Your task to perform on an android device: open chrome privacy settings Image 0: 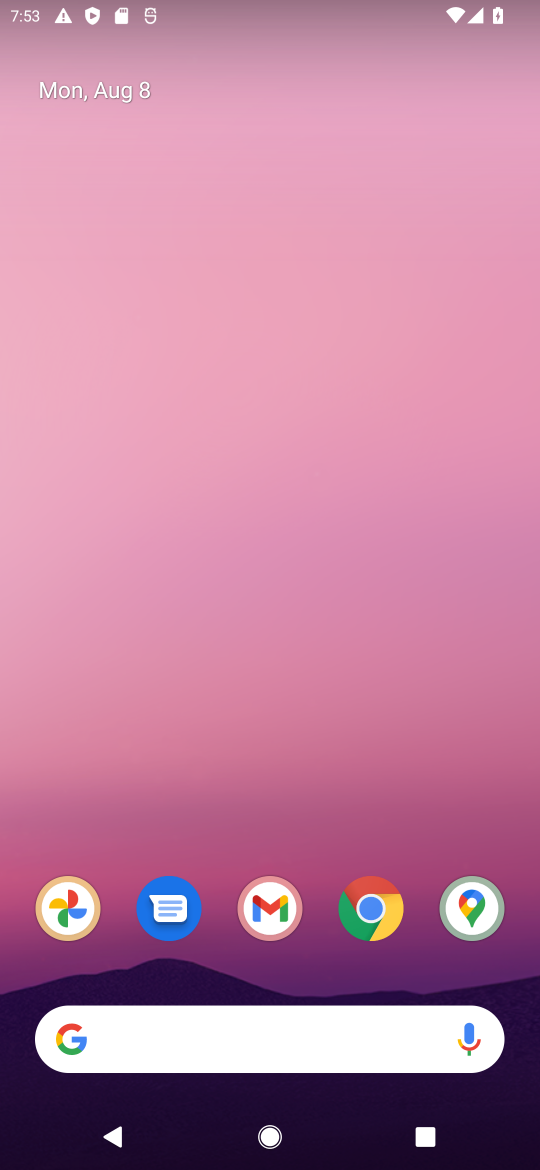
Step 0: click (371, 925)
Your task to perform on an android device: open chrome privacy settings Image 1: 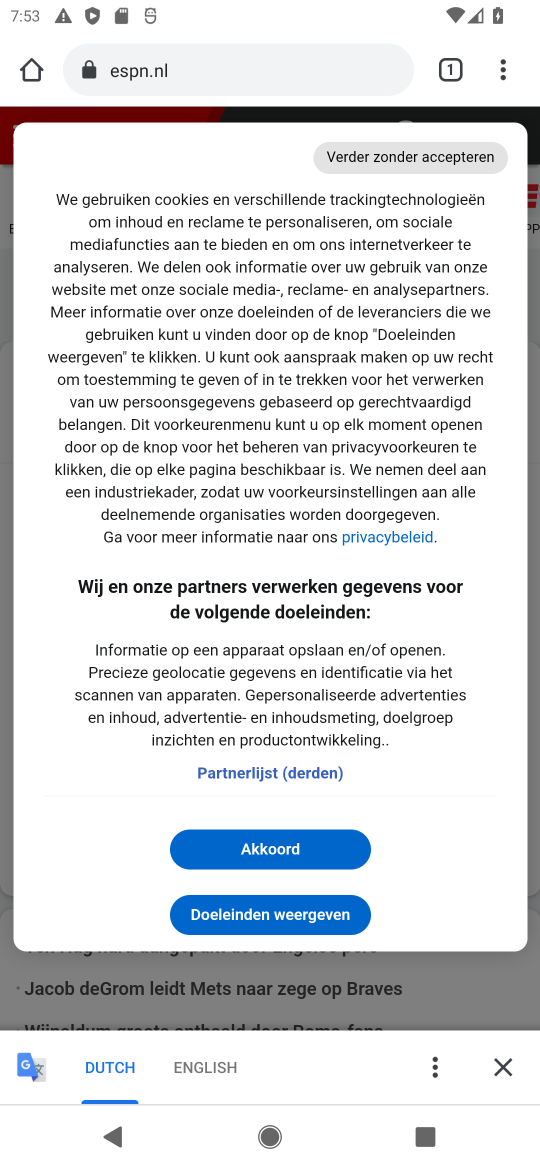
Step 1: click (517, 65)
Your task to perform on an android device: open chrome privacy settings Image 2: 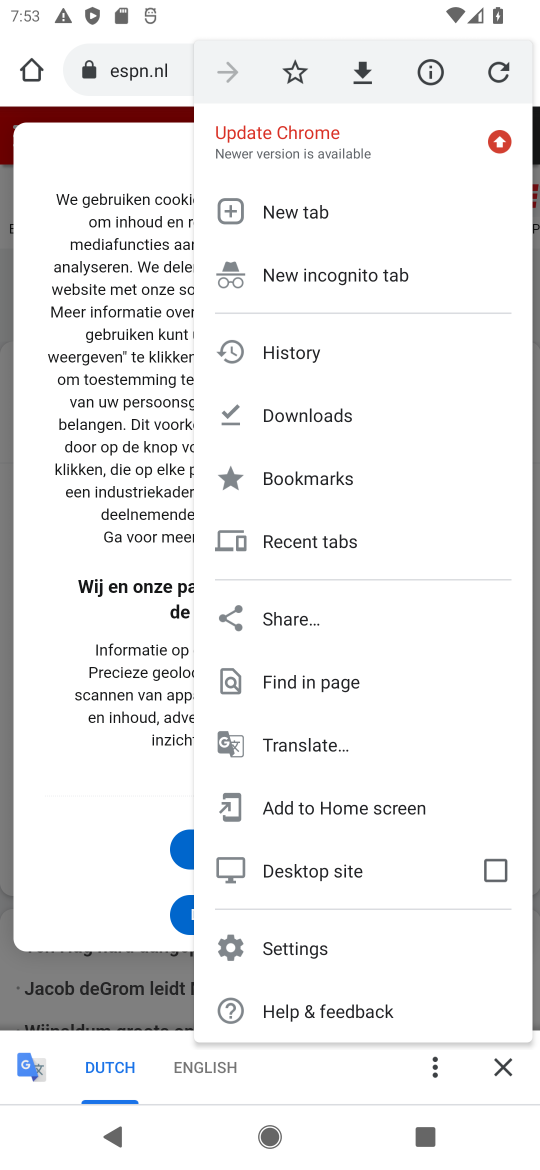
Step 2: click (369, 940)
Your task to perform on an android device: open chrome privacy settings Image 3: 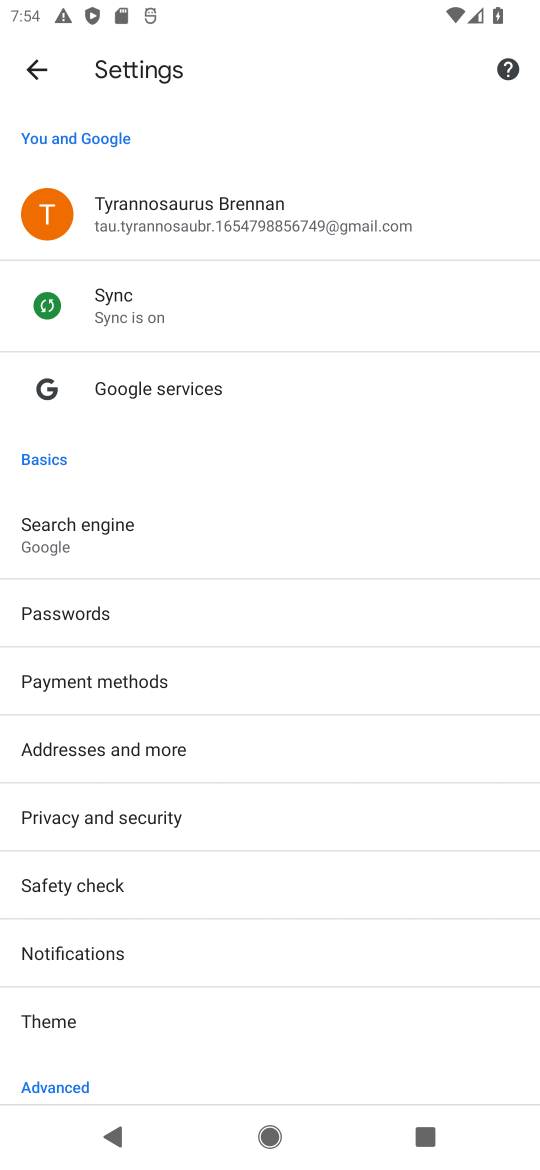
Step 3: drag from (161, 956) to (195, 355)
Your task to perform on an android device: open chrome privacy settings Image 4: 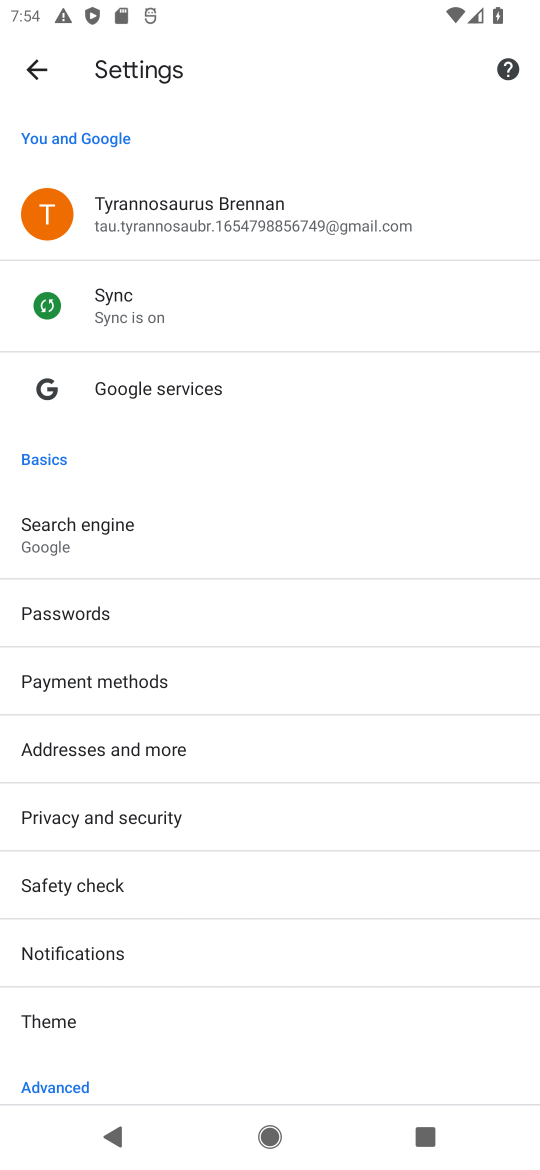
Step 4: click (125, 817)
Your task to perform on an android device: open chrome privacy settings Image 5: 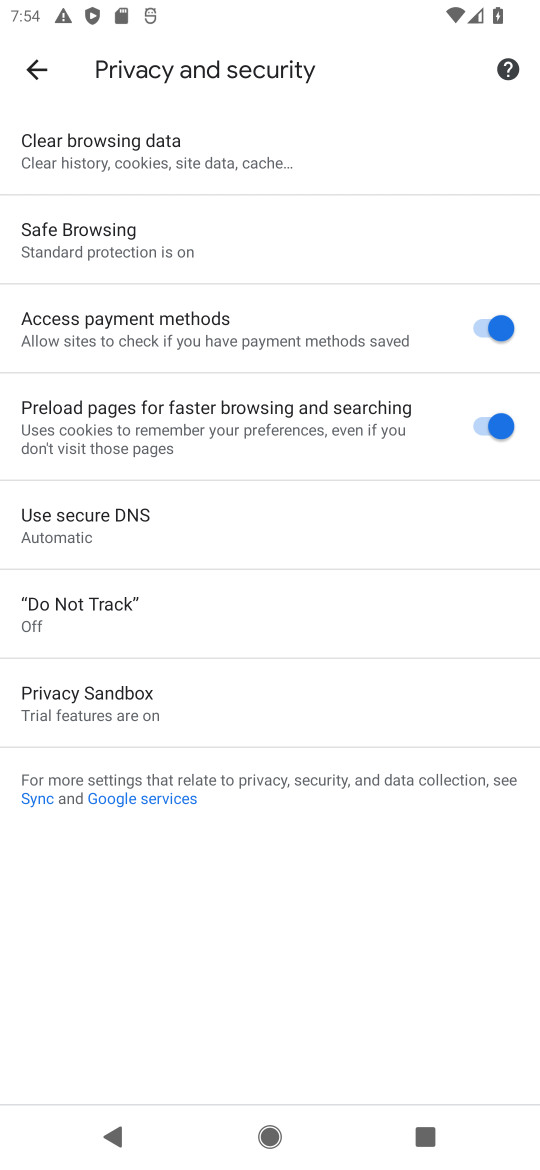
Step 5: task complete